Your task to perform on an android device: Turn off the flashlight Image 0: 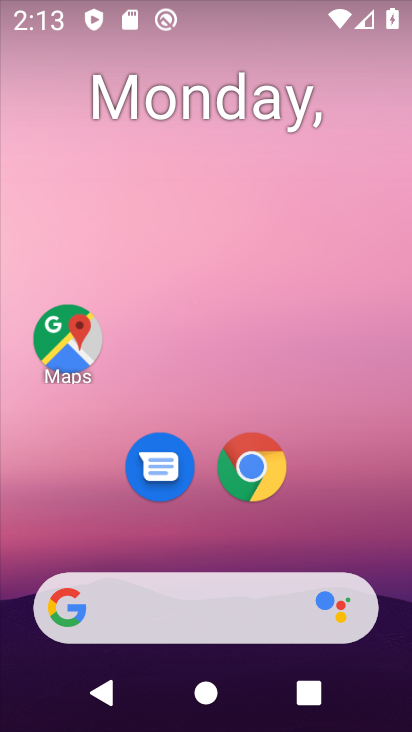
Step 0: drag from (386, 508) to (307, 84)
Your task to perform on an android device: Turn off the flashlight Image 1: 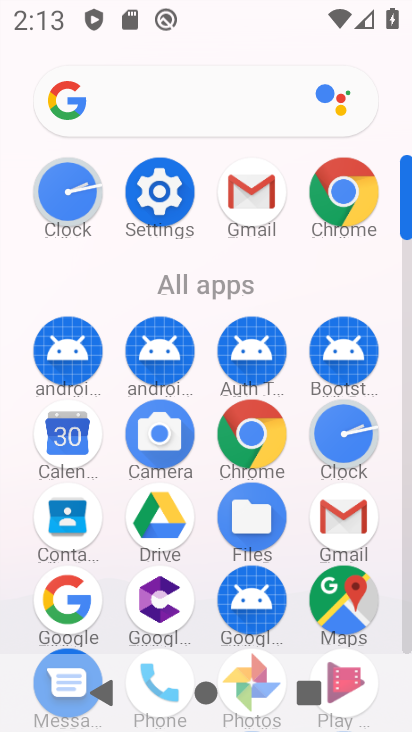
Step 1: drag from (235, 5) to (278, 347)
Your task to perform on an android device: Turn off the flashlight Image 2: 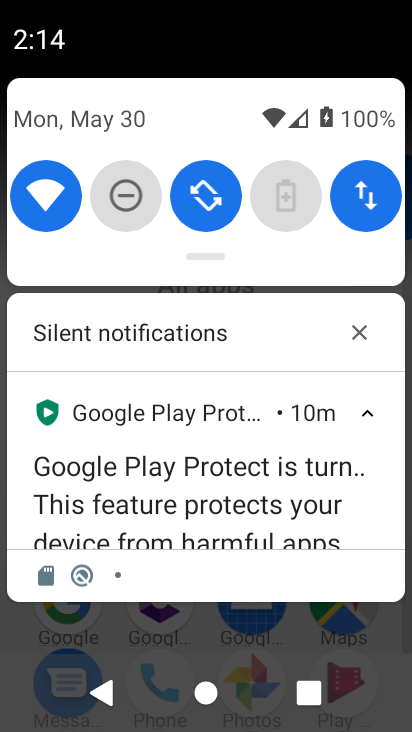
Step 2: drag from (243, 239) to (257, 458)
Your task to perform on an android device: Turn off the flashlight Image 3: 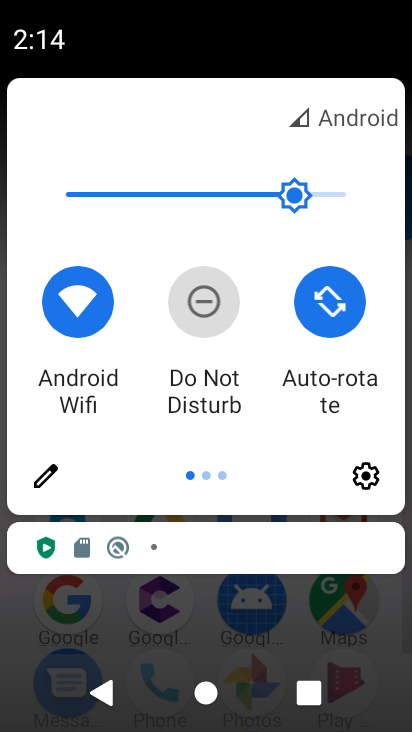
Step 3: click (40, 469)
Your task to perform on an android device: Turn off the flashlight Image 4: 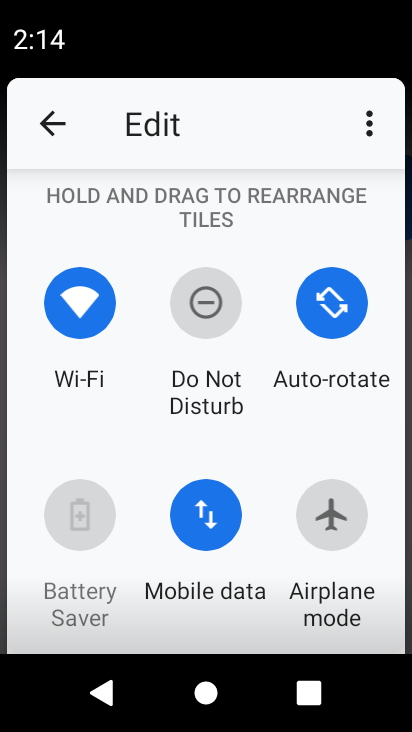
Step 4: task complete